Your task to perform on an android device: turn on the 12-hour format for clock Image 0: 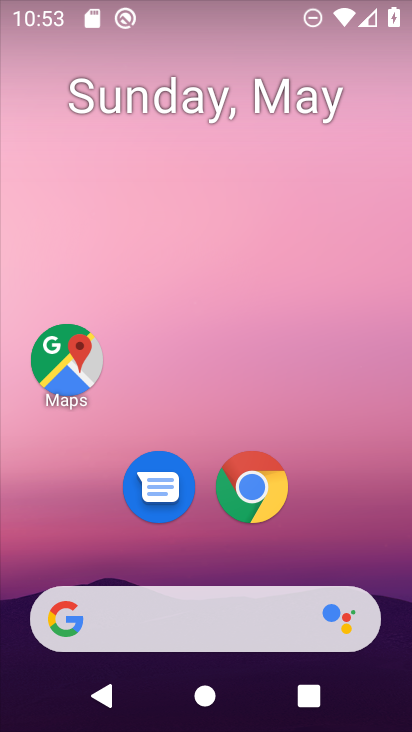
Step 0: drag from (374, 571) to (289, 125)
Your task to perform on an android device: turn on the 12-hour format for clock Image 1: 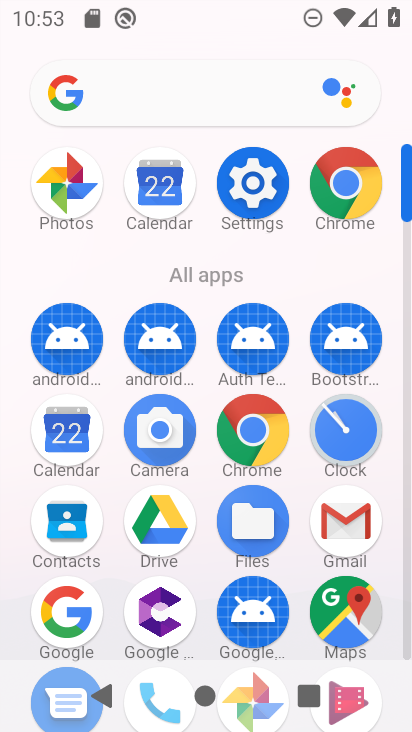
Step 1: click (341, 430)
Your task to perform on an android device: turn on the 12-hour format for clock Image 2: 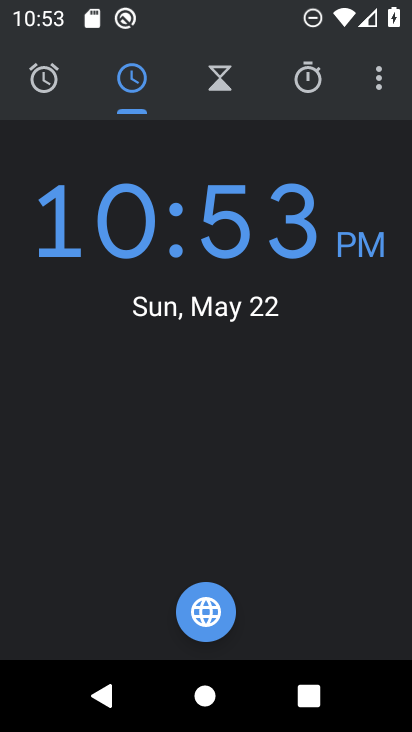
Step 2: click (399, 85)
Your task to perform on an android device: turn on the 12-hour format for clock Image 3: 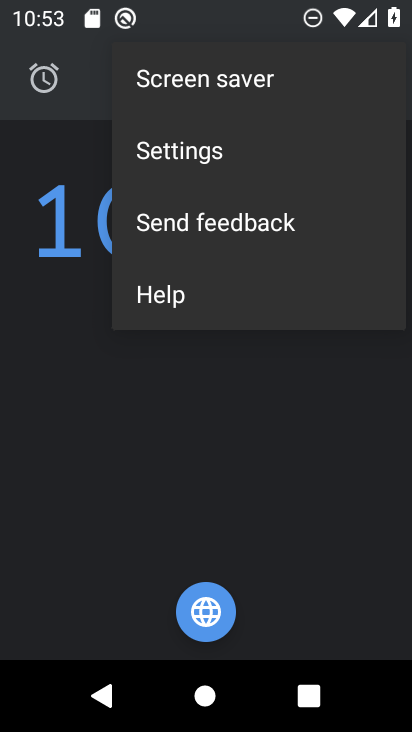
Step 3: click (324, 152)
Your task to perform on an android device: turn on the 12-hour format for clock Image 4: 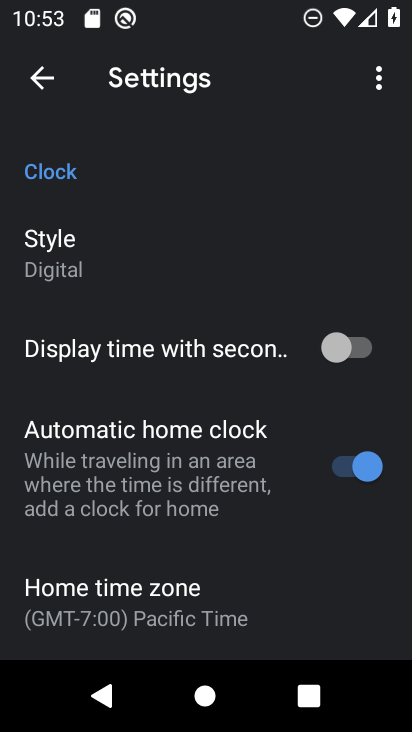
Step 4: drag from (260, 633) to (215, 175)
Your task to perform on an android device: turn on the 12-hour format for clock Image 5: 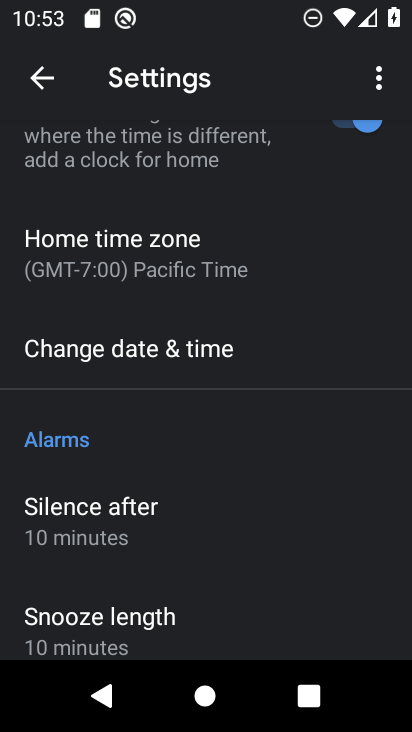
Step 5: click (239, 336)
Your task to perform on an android device: turn on the 12-hour format for clock Image 6: 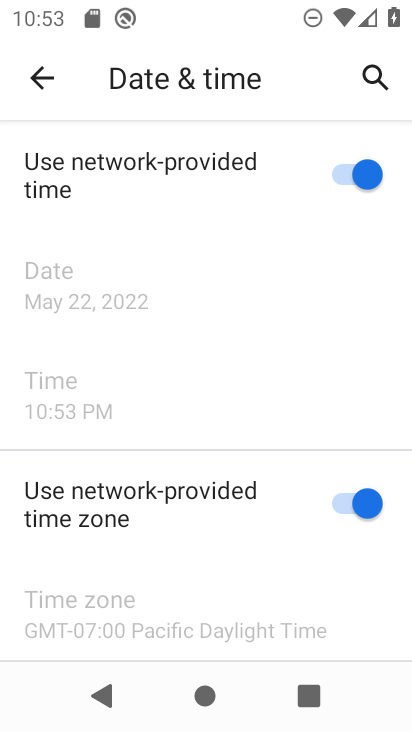
Step 6: task complete